Your task to perform on an android device: change text size in settings app Image 0: 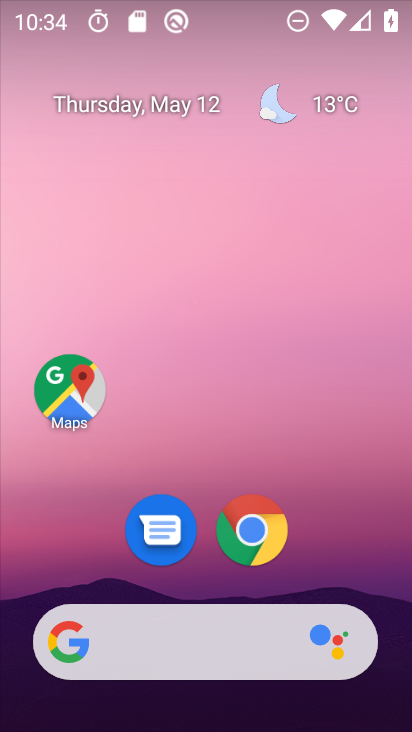
Step 0: drag from (324, 550) to (369, 180)
Your task to perform on an android device: change text size in settings app Image 1: 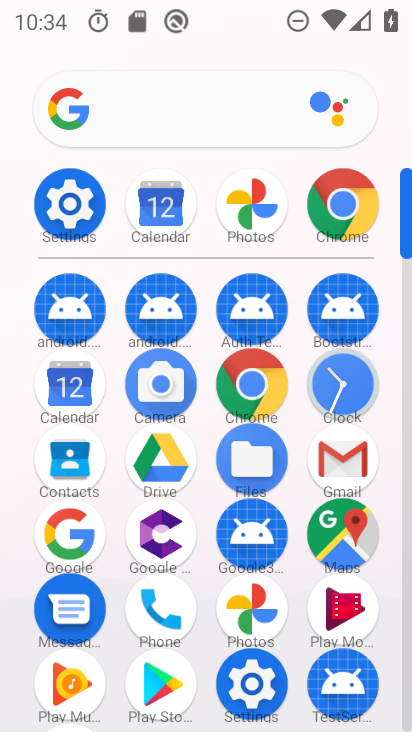
Step 1: click (80, 209)
Your task to perform on an android device: change text size in settings app Image 2: 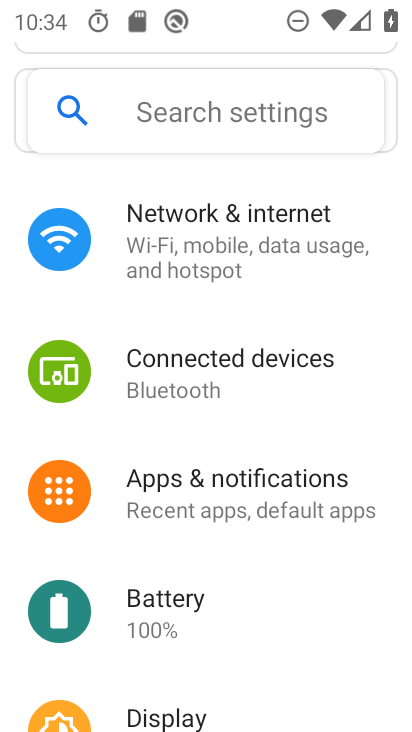
Step 2: drag from (243, 634) to (266, 266)
Your task to perform on an android device: change text size in settings app Image 3: 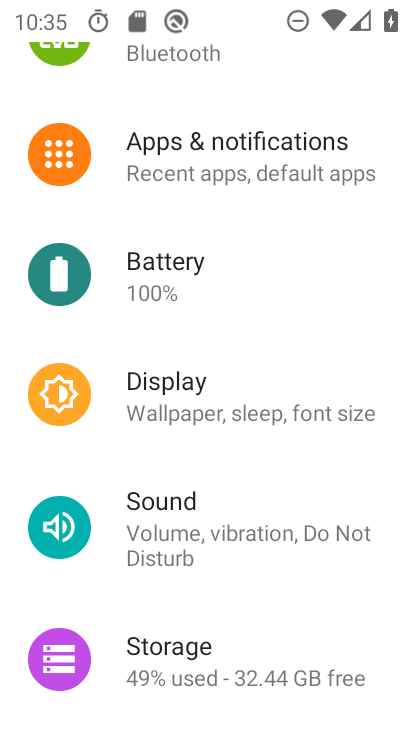
Step 3: click (219, 394)
Your task to perform on an android device: change text size in settings app Image 4: 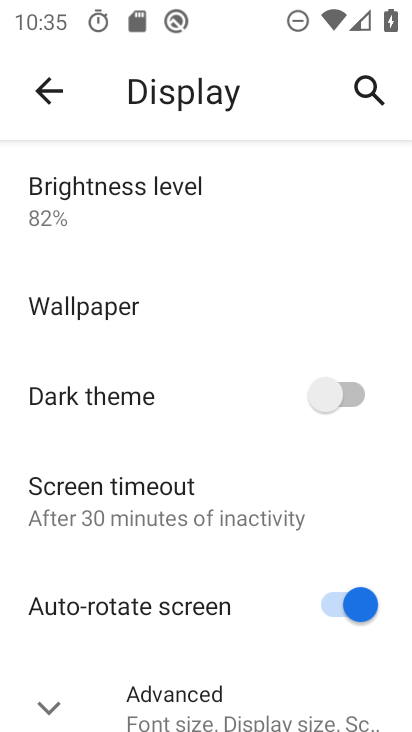
Step 4: drag from (191, 558) to (233, 141)
Your task to perform on an android device: change text size in settings app Image 5: 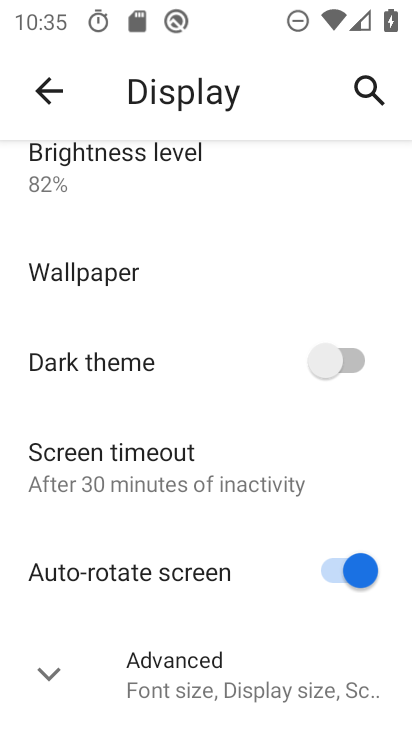
Step 5: click (77, 668)
Your task to perform on an android device: change text size in settings app Image 6: 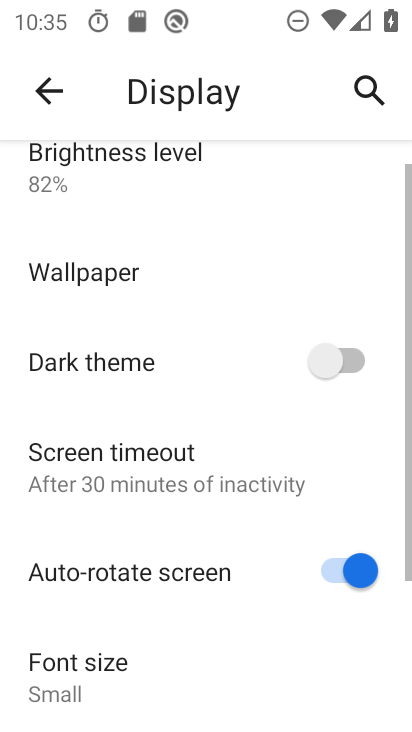
Step 6: drag from (155, 692) to (220, 316)
Your task to perform on an android device: change text size in settings app Image 7: 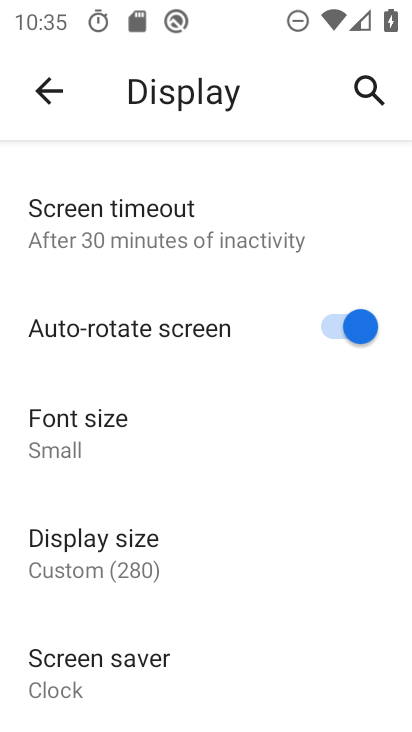
Step 7: click (121, 448)
Your task to perform on an android device: change text size in settings app Image 8: 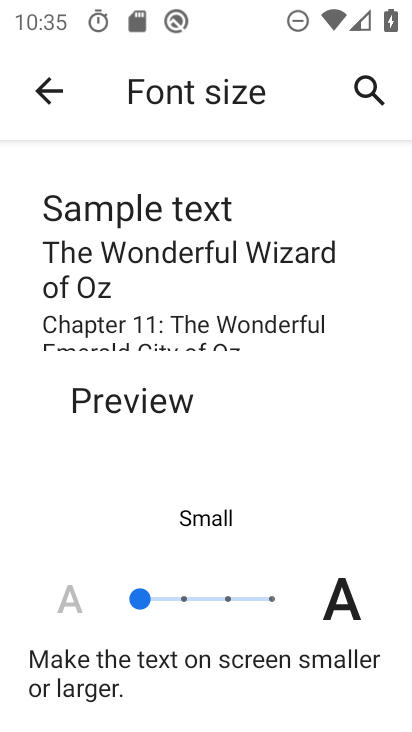
Step 8: task complete